Your task to perform on an android device: Go to Google maps Image 0: 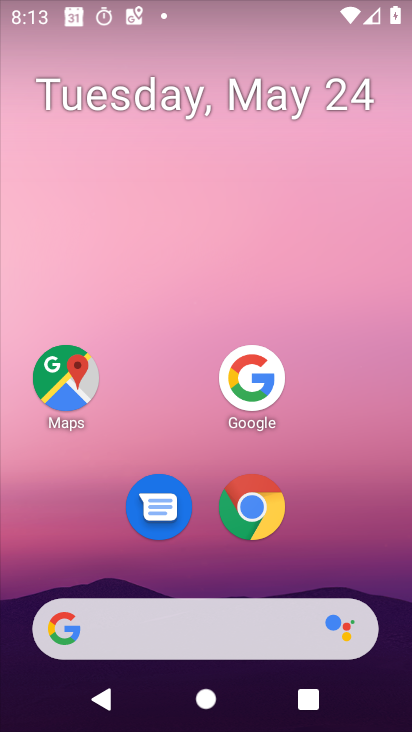
Step 0: press home button
Your task to perform on an android device: Go to Google maps Image 1: 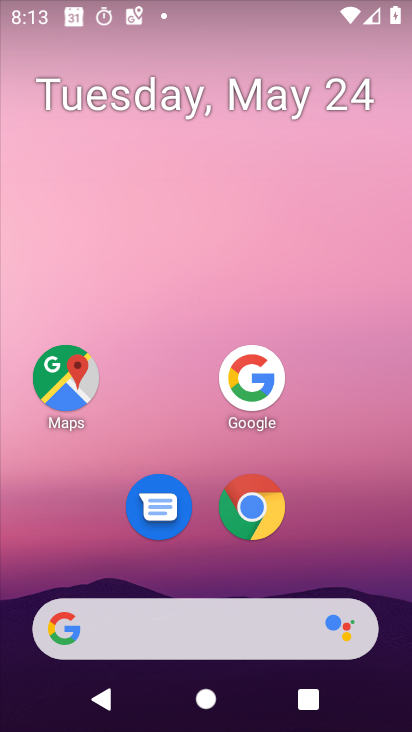
Step 1: click (69, 376)
Your task to perform on an android device: Go to Google maps Image 2: 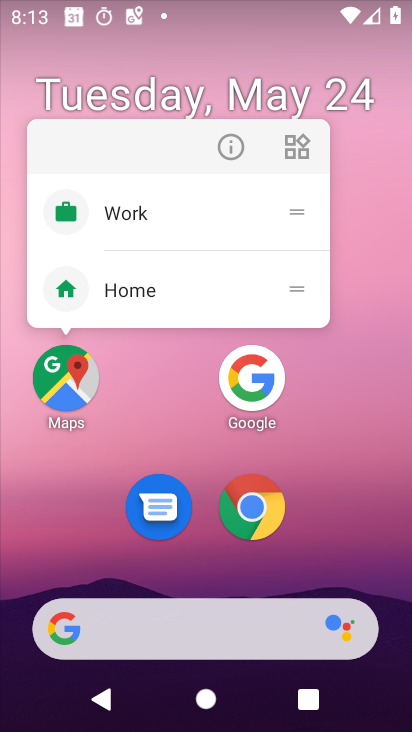
Step 2: click (73, 385)
Your task to perform on an android device: Go to Google maps Image 3: 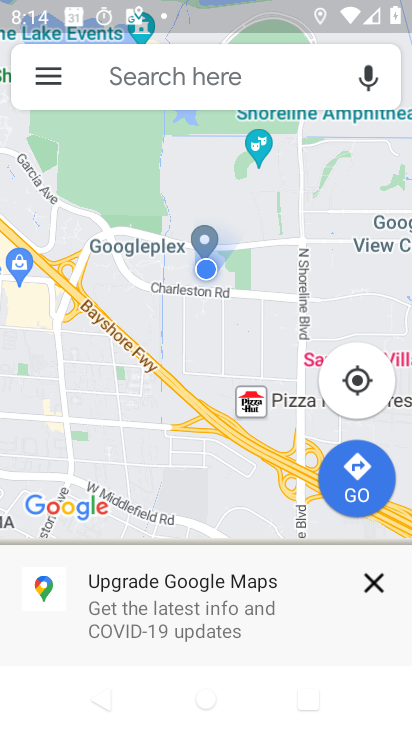
Step 3: task complete